Your task to perform on an android device: Search for "sony triple a" on costco, select the first entry, add it to the cart, then select checkout. Image 0: 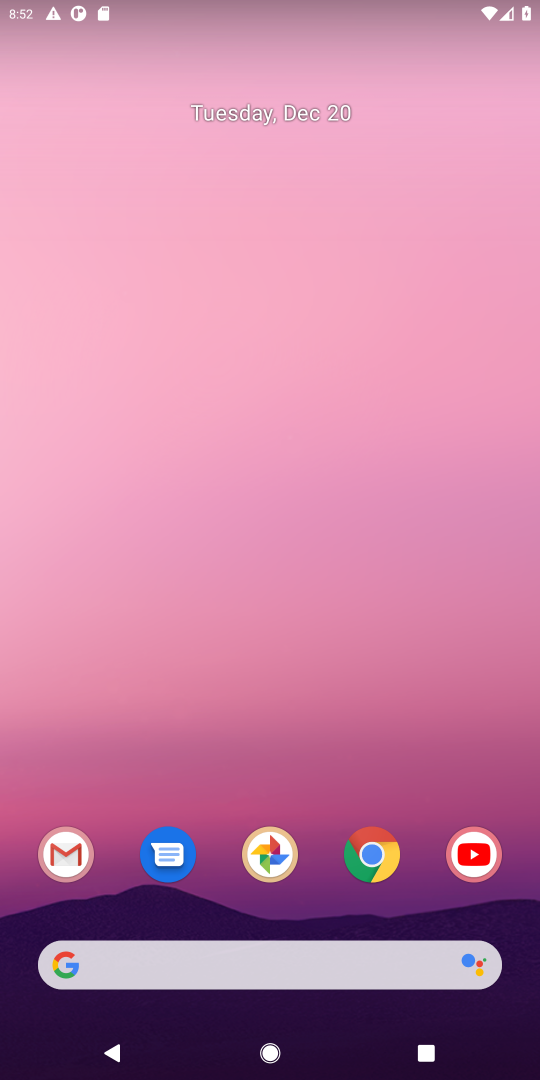
Step 0: click (372, 866)
Your task to perform on an android device: Search for "sony triple a" on costco, select the first entry, add it to the cart, then select checkout. Image 1: 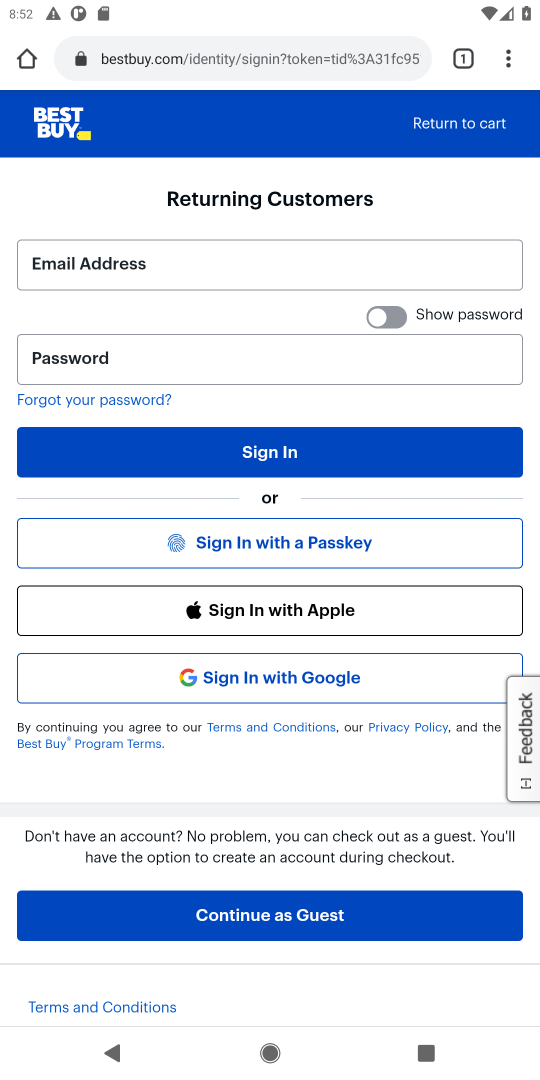
Step 1: click (196, 61)
Your task to perform on an android device: Search for "sony triple a" on costco, select the first entry, add it to the cart, then select checkout. Image 2: 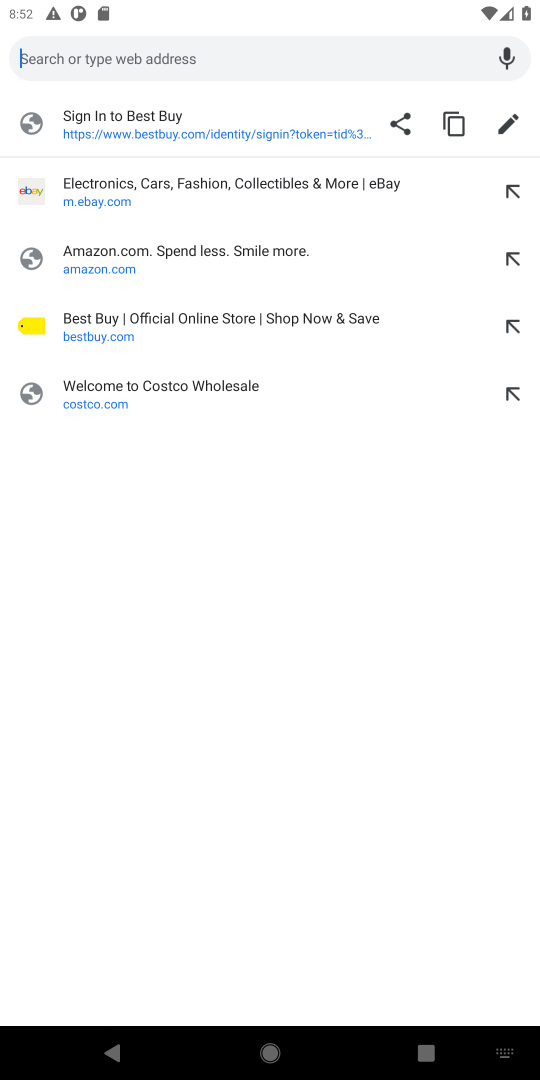
Step 2: click (112, 384)
Your task to perform on an android device: Search for "sony triple a" on costco, select the first entry, add it to the cart, then select checkout. Image 3: 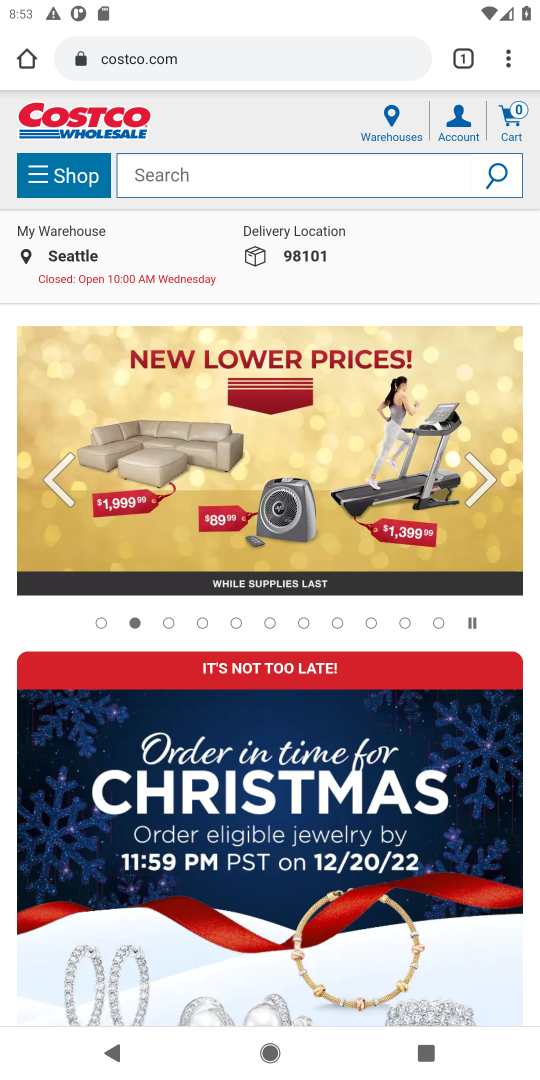
Step 3: click (203, 175)
Your task to perform on an android device: Search for "sony triple a" on costco, select the first entry, add it to the cart, then select checkout. Image 4: 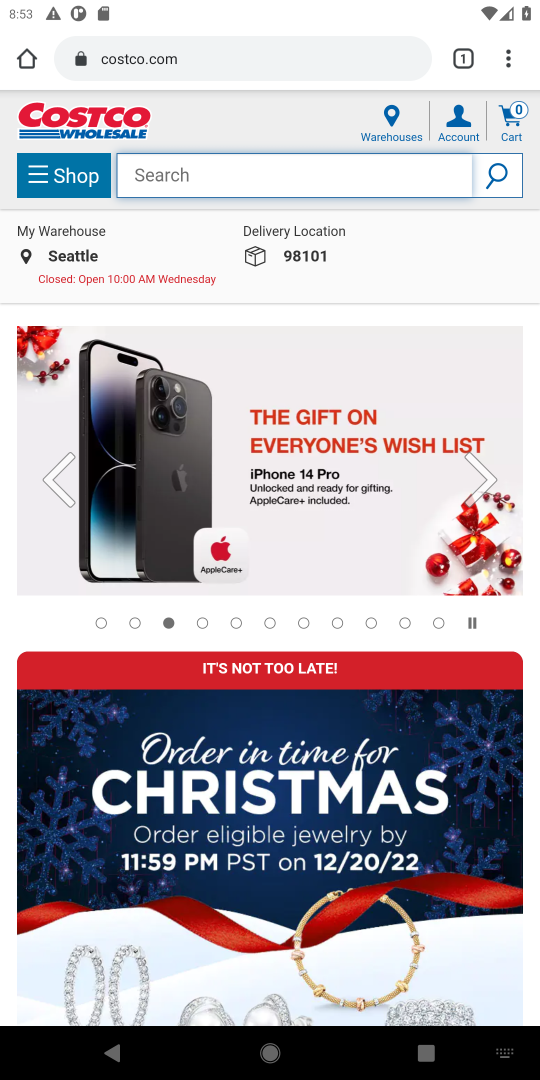
Step 4: type "sony triple a"
Your task to perform on an android device: Search for "sony triple a" on costco, select the first entry, add it to the cart, then select checkout. Image 5: 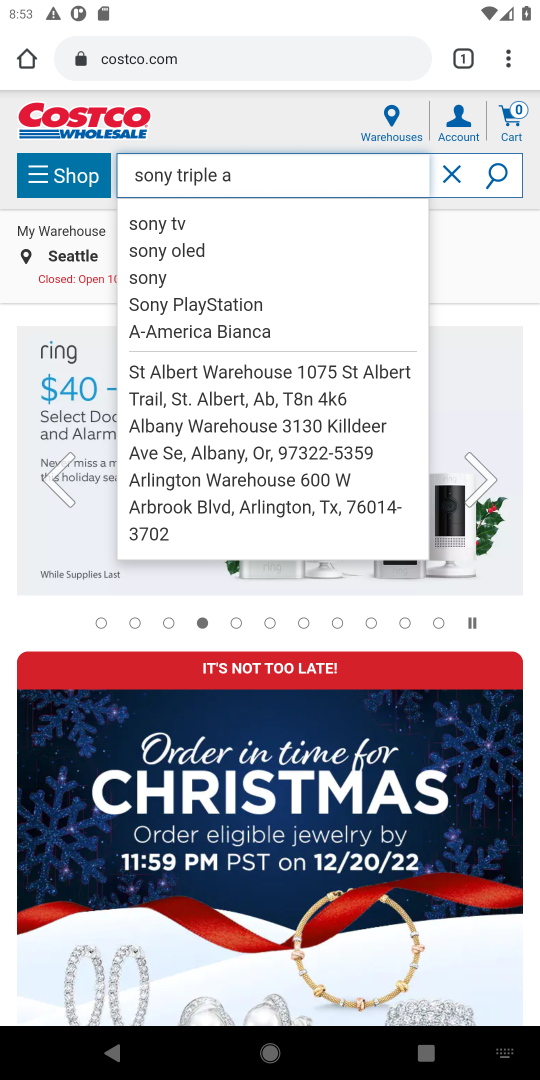
Step 5: click (493, 179)
Your task to perform on an android device: Search for "sony triple a" on costco, select the first entry, add it to the cart, then select checkout. Image 6: 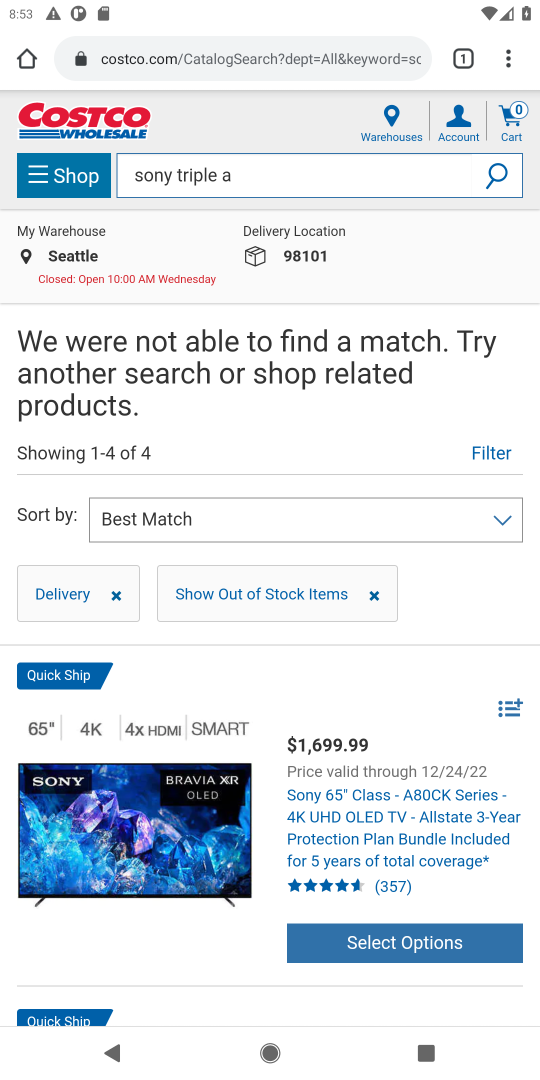
Step 6: task complete